Your task to perform on an android device: toggle notification dots Image 0: 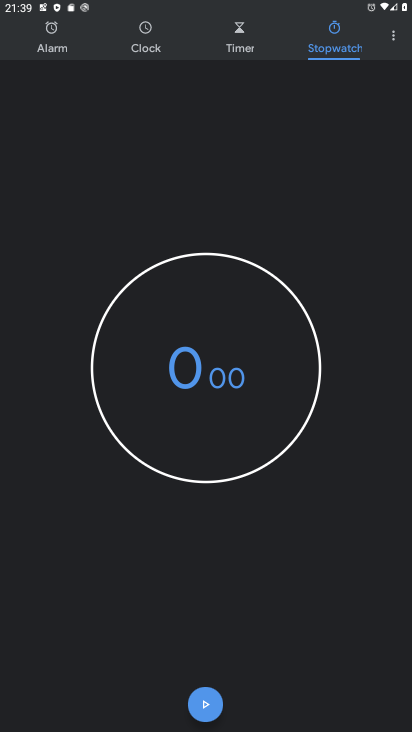
Step 0: press home button
Your task to perform on an android device: toggle notification dots Image 1: 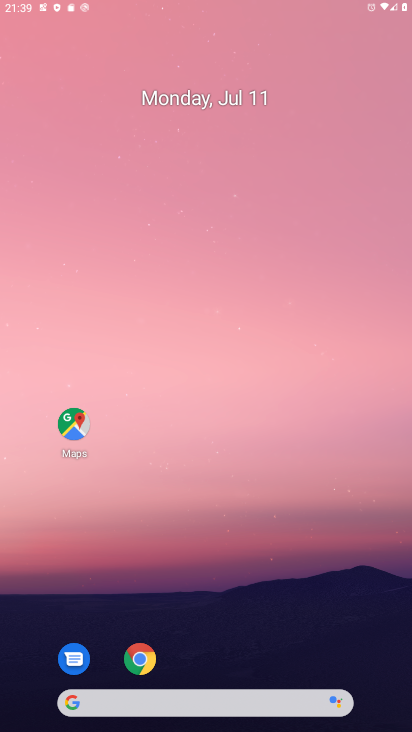
Step 1: click (332, 138)
Your task to perform on an android device: toggle notification dots Image 2: 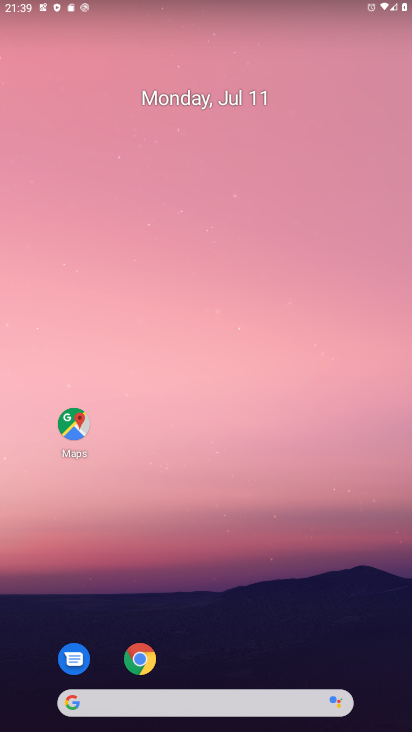
Step 2: drag from (167, 530) to (227, 74)
Your task to perform on an android device: toggle notification dots Image 3: 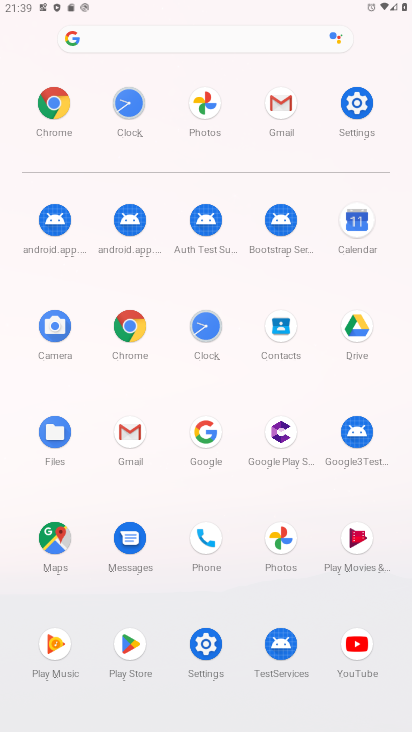
Step 3: click (208, 651)
Your task to perform on an android device: toggle notification dots Image 4: 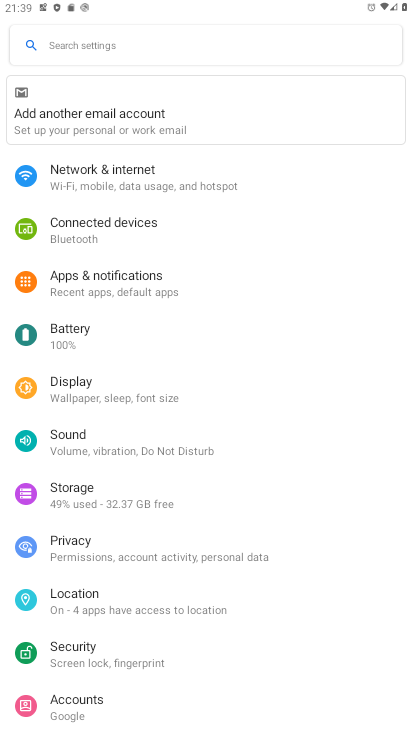
Step 4: click (180, 280)
Your task to perform on an android device: toggle notification dots Image 5: 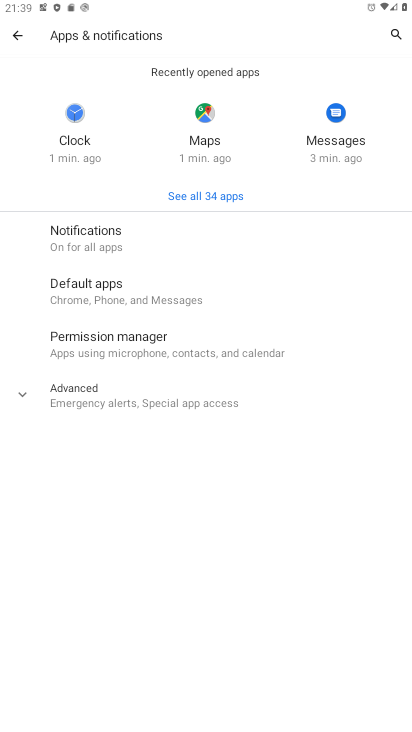
Step 5: click (111, 243)
Your task to perform on an android device: toggle notification dots Image 6: 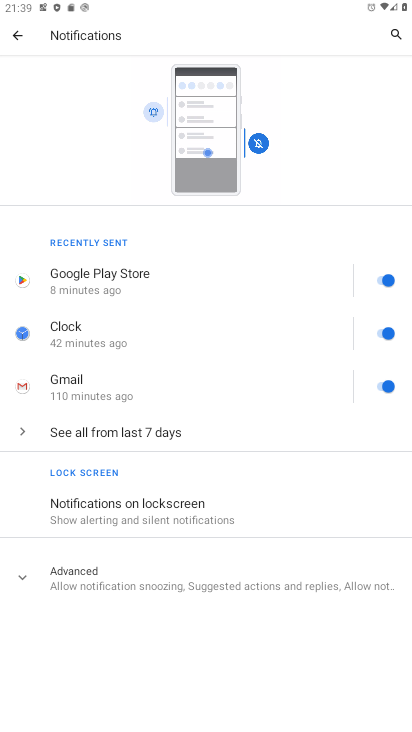
Step 6: drag from (166, 577) to (247, 152)
Your task to perform on an android device: toggle notification dots Image 7: 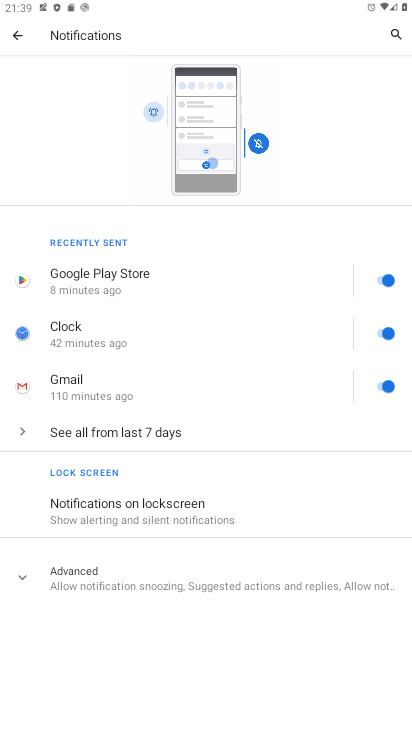
Step 7: click (118, 567)
Your task to perform on an android device: toggle notification dots Image 8: 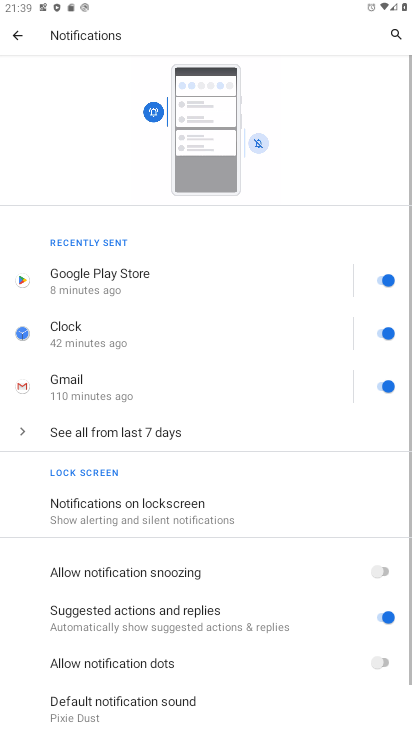
Step 8: drag from (142, 581) to (246, 182)
Your task to perform on an android device: toggle notification dots Image 9: 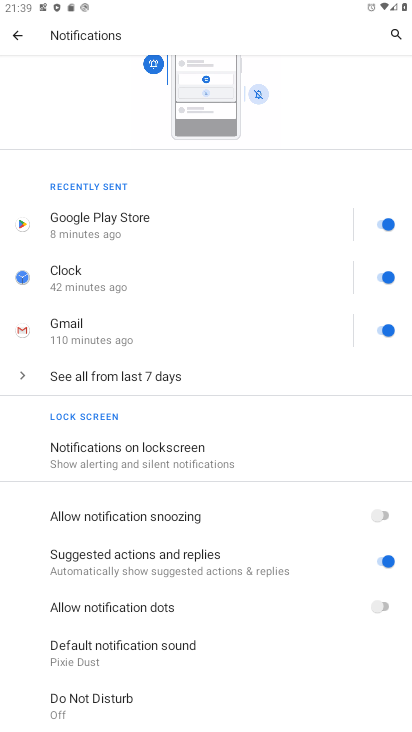
Step 9: click (389, 601)
Your task to perform on an android device: toggle notification dots Image 10: 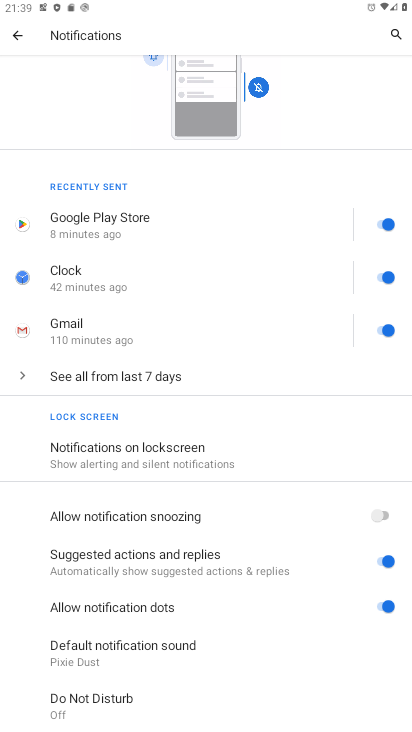
Step 10: task complete